Your task to perform on an android device: Toggle the flashlight Image 0: 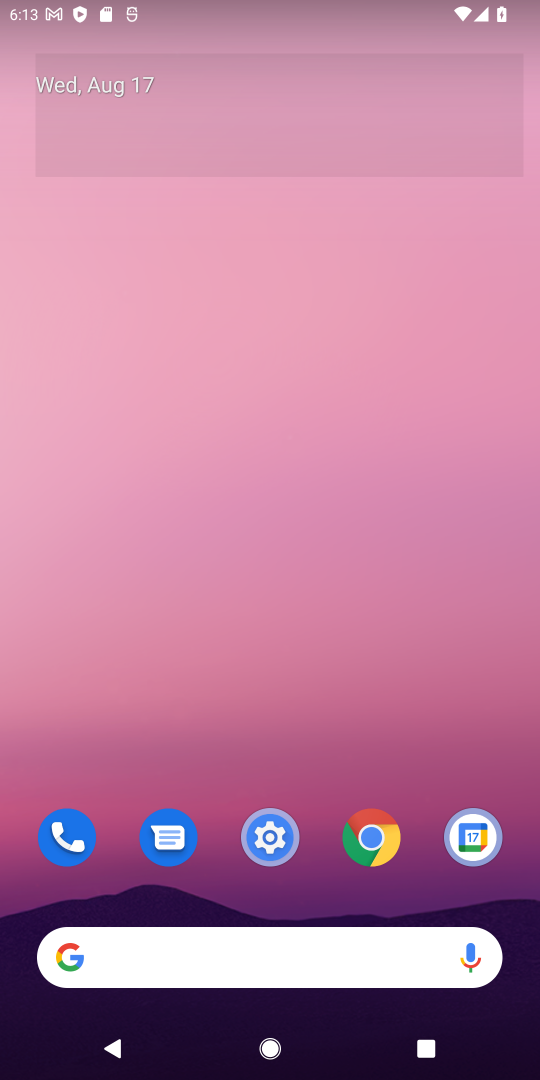
Step 0: click (272, 816)
Your task to perform on an android device: Toggle the flashlight Image 1: 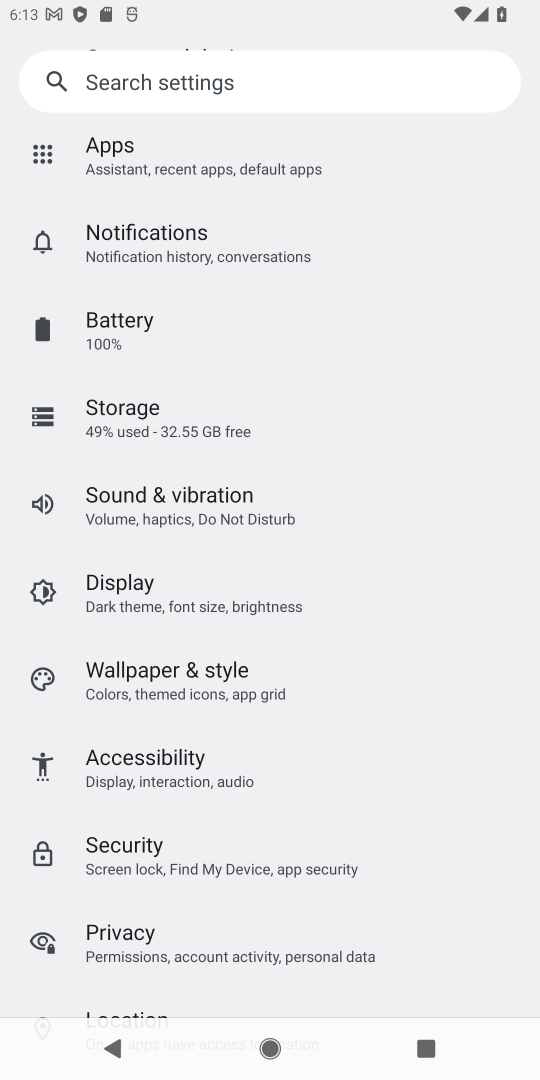
Step 1: click (199, 73)
Your task to perform on an android device: Toggle the flashlight Image 2: 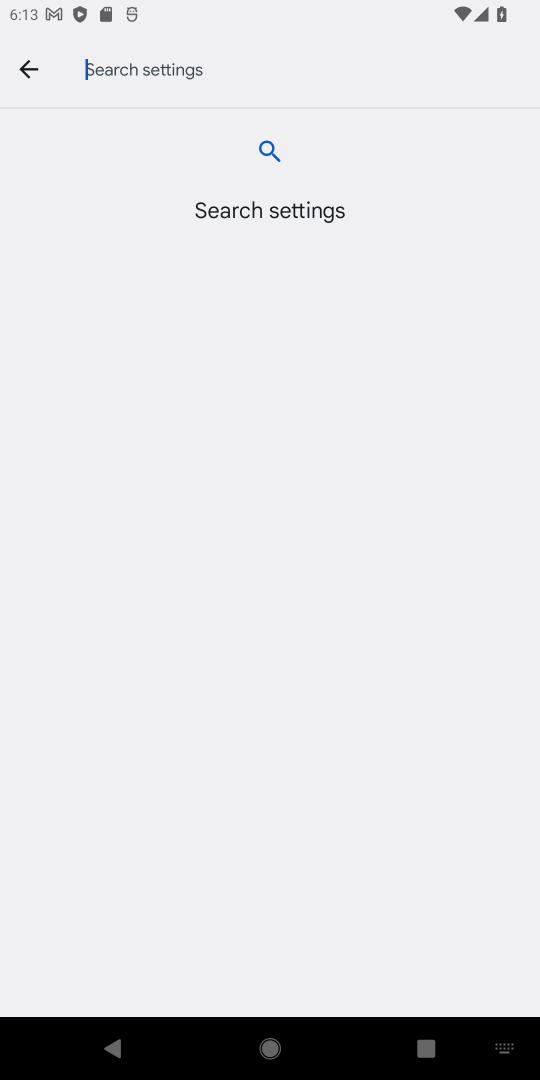
Step 2: type "flashlight"
Your task to perform on an android device: Toggle the flashlight Image 3: 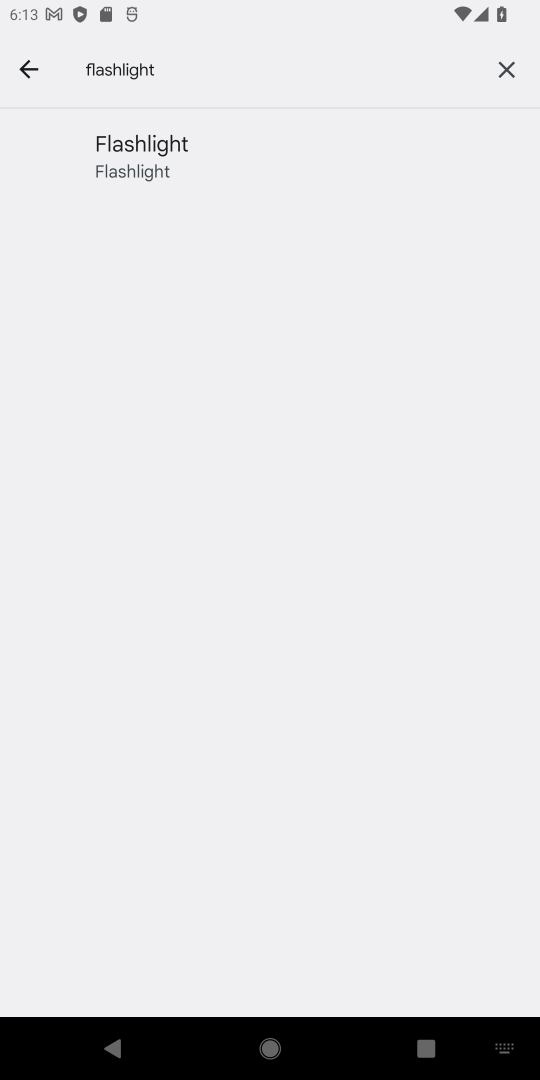
Step 3: click (178, 150)
Your task to perform on an android device: Toggle the flashlight Image 4: 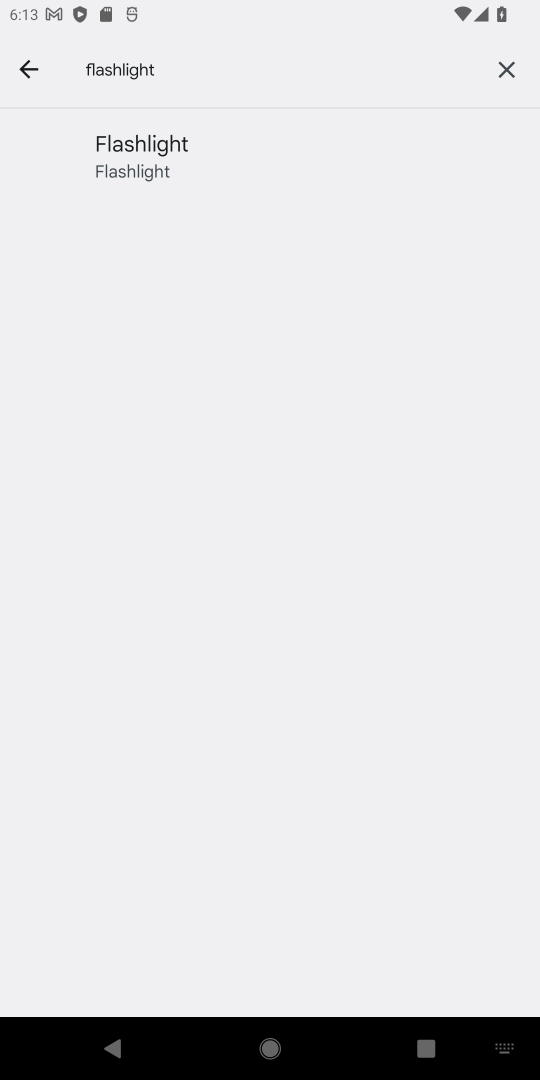
Step 4: click (178, 150)
Your task to perform on an android device: Toggle the flashlight Image 5: 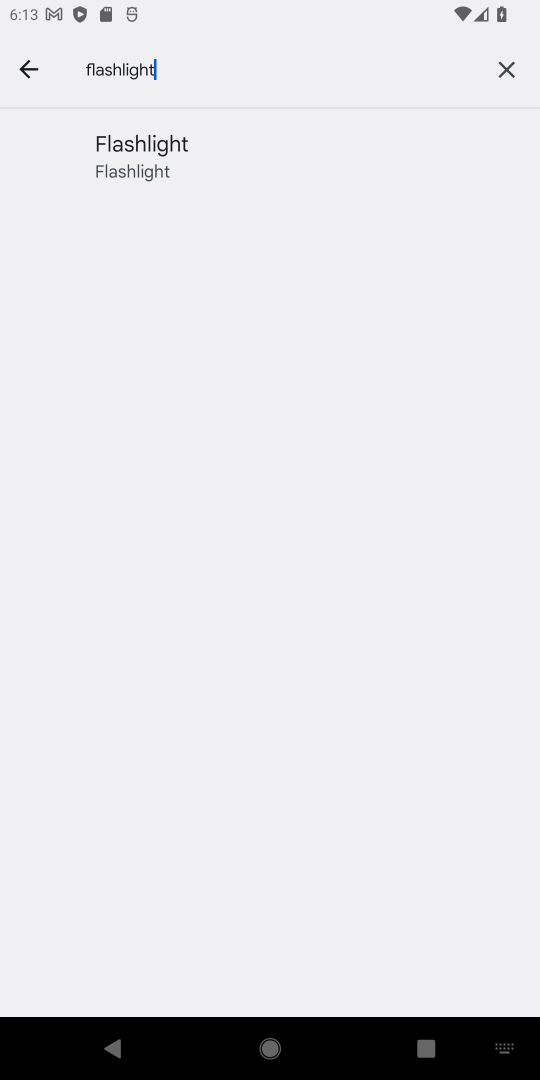
Step 5: task complete